Your task to perform on an android device: What's the weather today? Image 0: 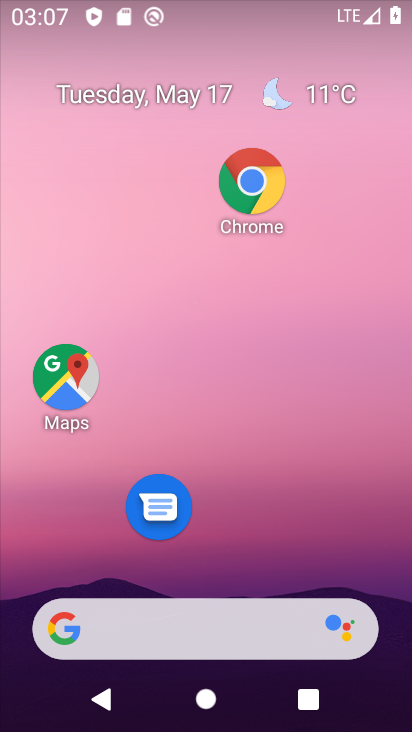
Step 0: click (319, 93)
Your task to perform on an android device: What's the weather today? Image 1: 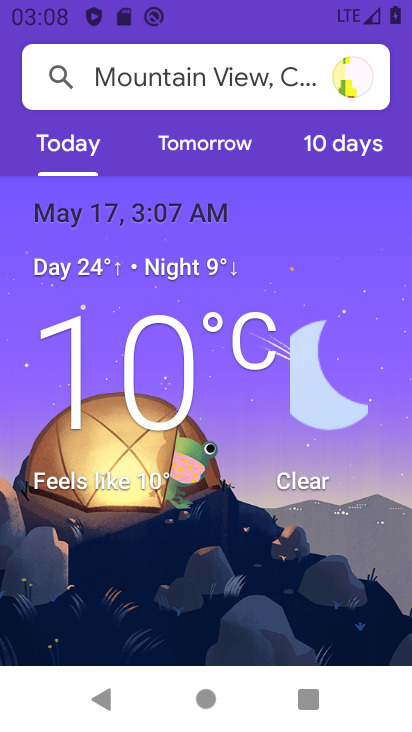
Step 1: task complete